Your task to perform on an android device: turn off smart reply in the gmail app Image 0: 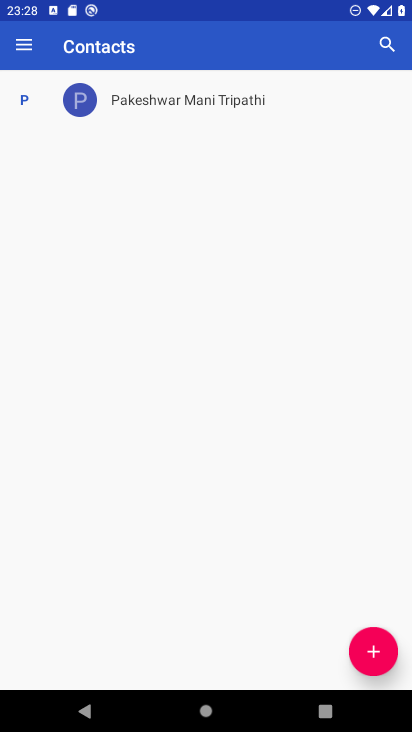
Step 0: press home button
Your task to perform on an android device: turn off smart reply in the gmail app Image 1: 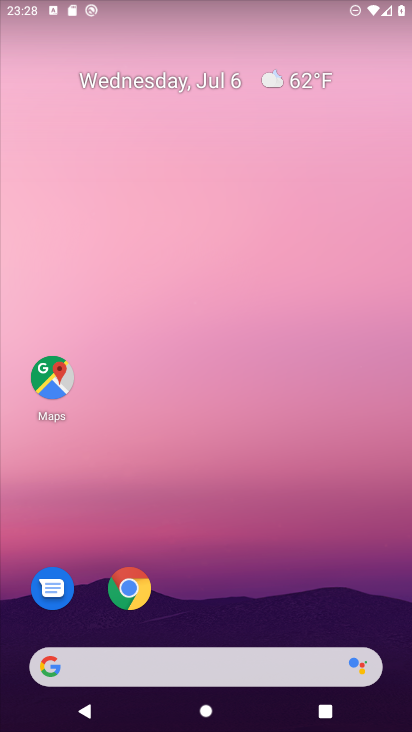
Step 1: drag from (380, 609) to (346, 63)
Your task to perform on an android device: turn off smart reply in the gmail app Image 2: 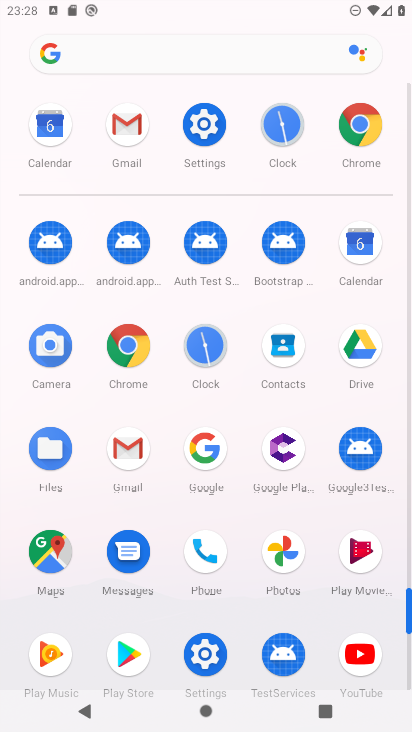
Step 2: click (128, 447)
Your task to perform on an android device: turn off smart reply in the gmail app Image 3: 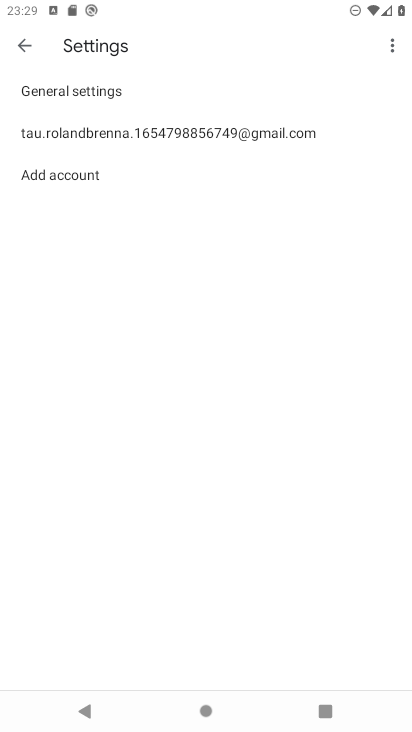
Step 3: press back button
Your task to perform on an android device: turn off smart reply in the gmail app Image 4: 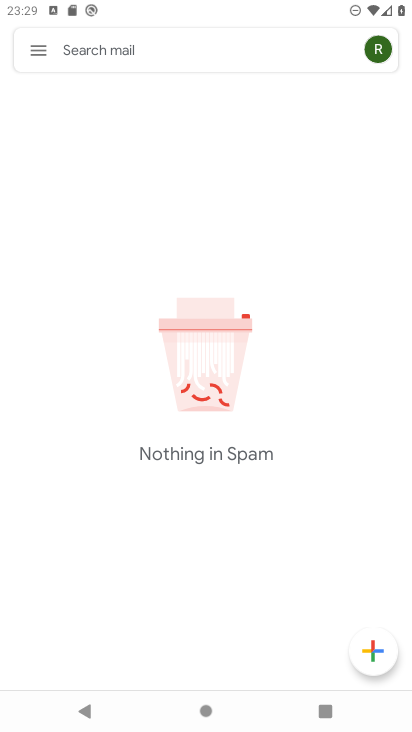
Step 4: click (33, 40)
Your task to perform on an android device: turn off smart reply in the gmail app Image 5: 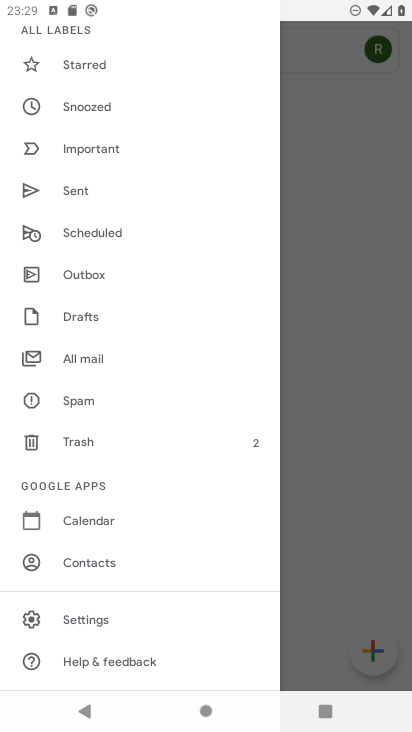
Step 5: click (77, 624)
Your task to perform on an android device: turn off smart reply in the gmail app Image 6: 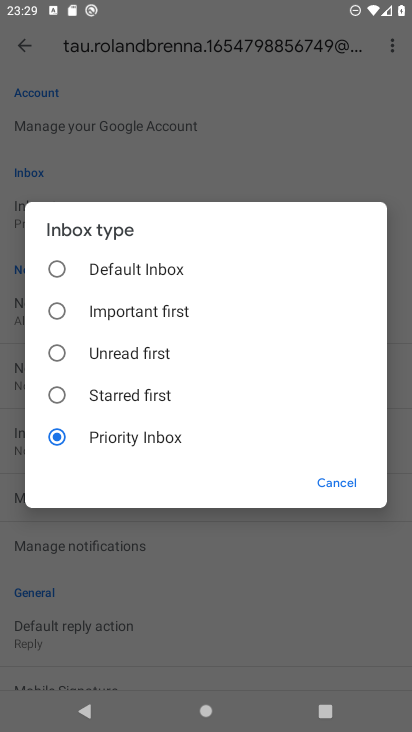
Step 6: click (338, 489)
Your task to perform on an android device: turn off smart reply in the gmail app Image 7: 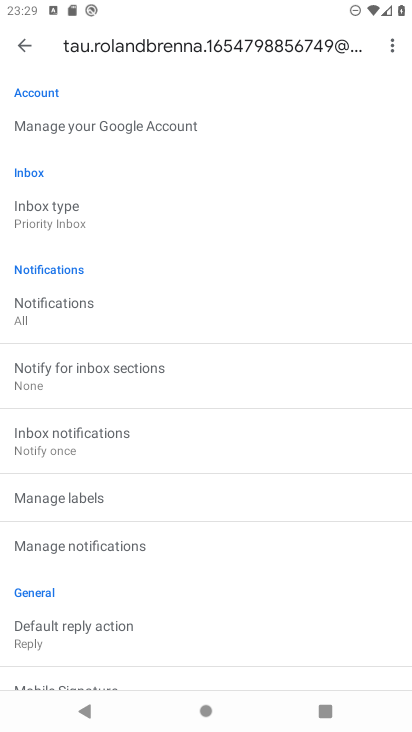
Step 7: drag from (240, 625) to (202, 191)
Your task to perform on an android device: turn off smart reply in the gmail app Image 8: 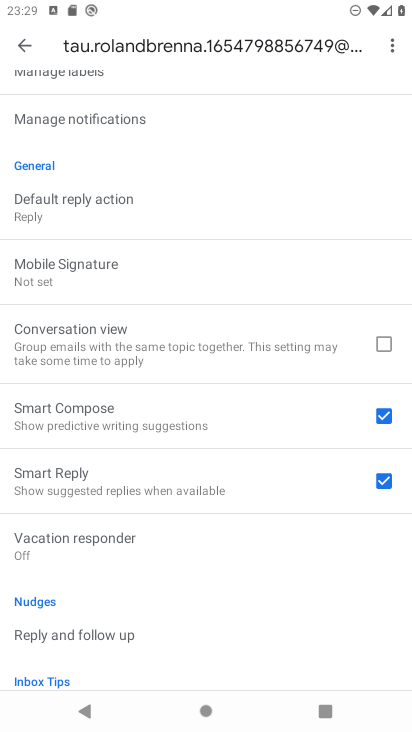
Step 8: click (382, 482)
Your task to perform on an android device: turn off smart reply in the gmail app Image 9: 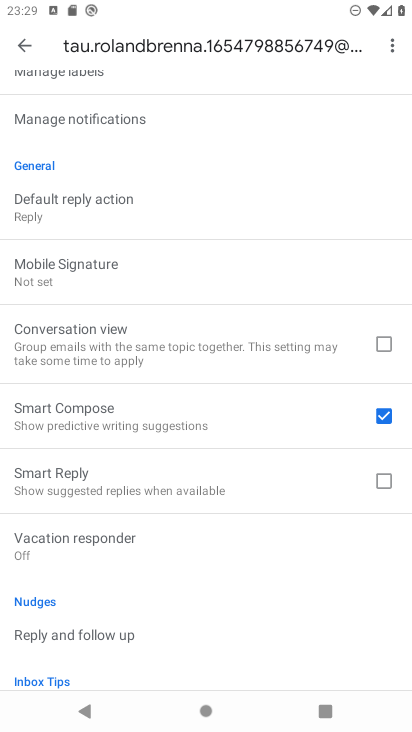
Step 9: task complete